Your task to perform on an android device: Empty the shopping cart on bestbuy.com. Add "macbook pro" to the cart on bestbuy.com, then select checkout. Image 0: 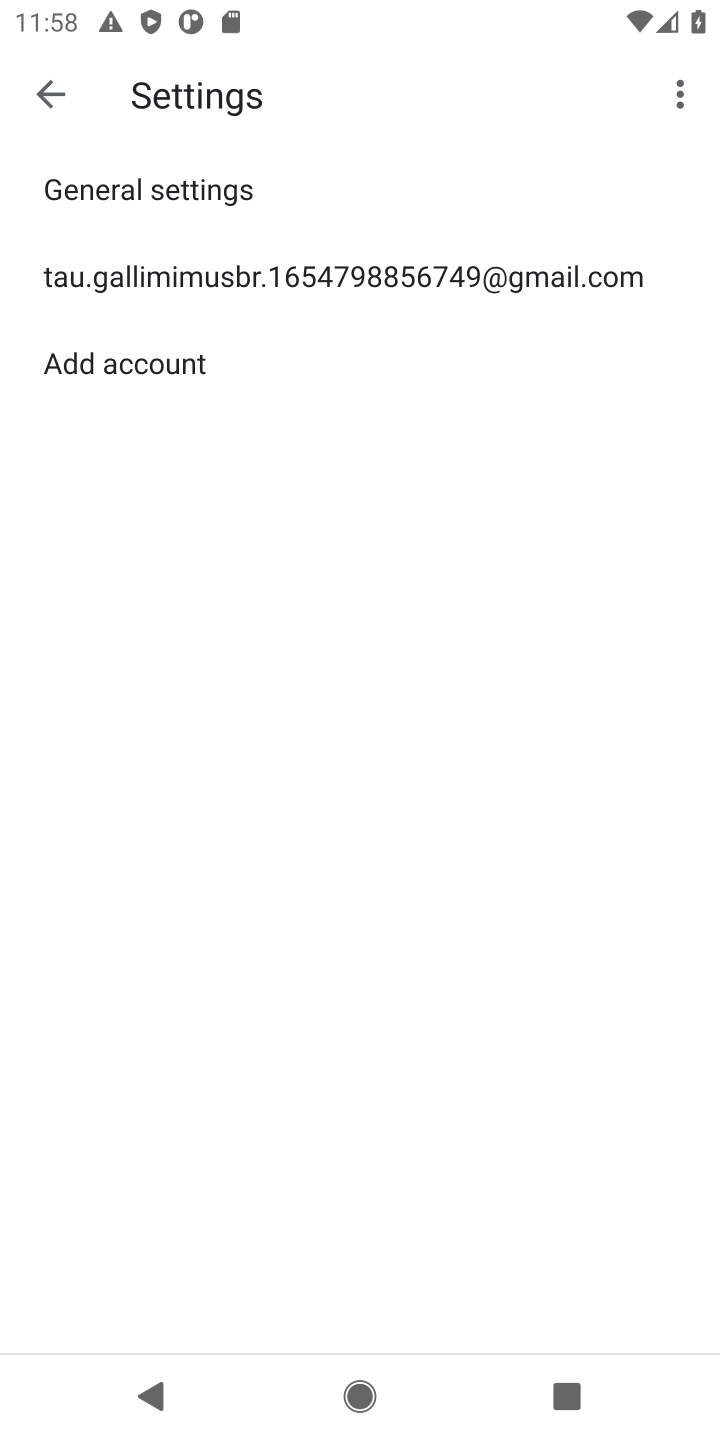
Step 0: press home button
Your task to perform on an android device: Empty the shopping cart on bestbuy.com. Add "macbook pro" to the cart on bestbuy.com, then select checkout. Image 1: 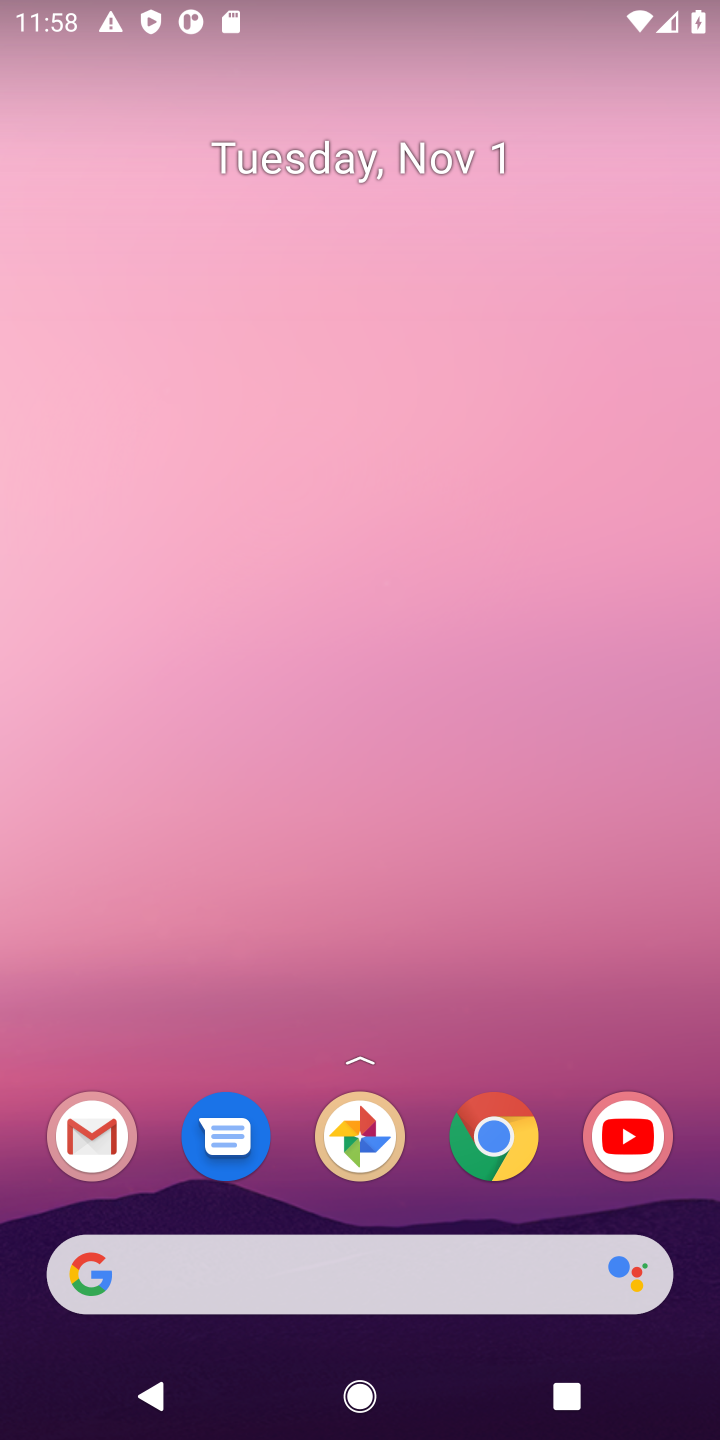
Step 1: click (489, 1142)
Your task to perform on an android device: Empty the shopping cart on bestbuy.com. Add "macbook pro" to the cart on bestbuy.com, then select checkout. Image 2: 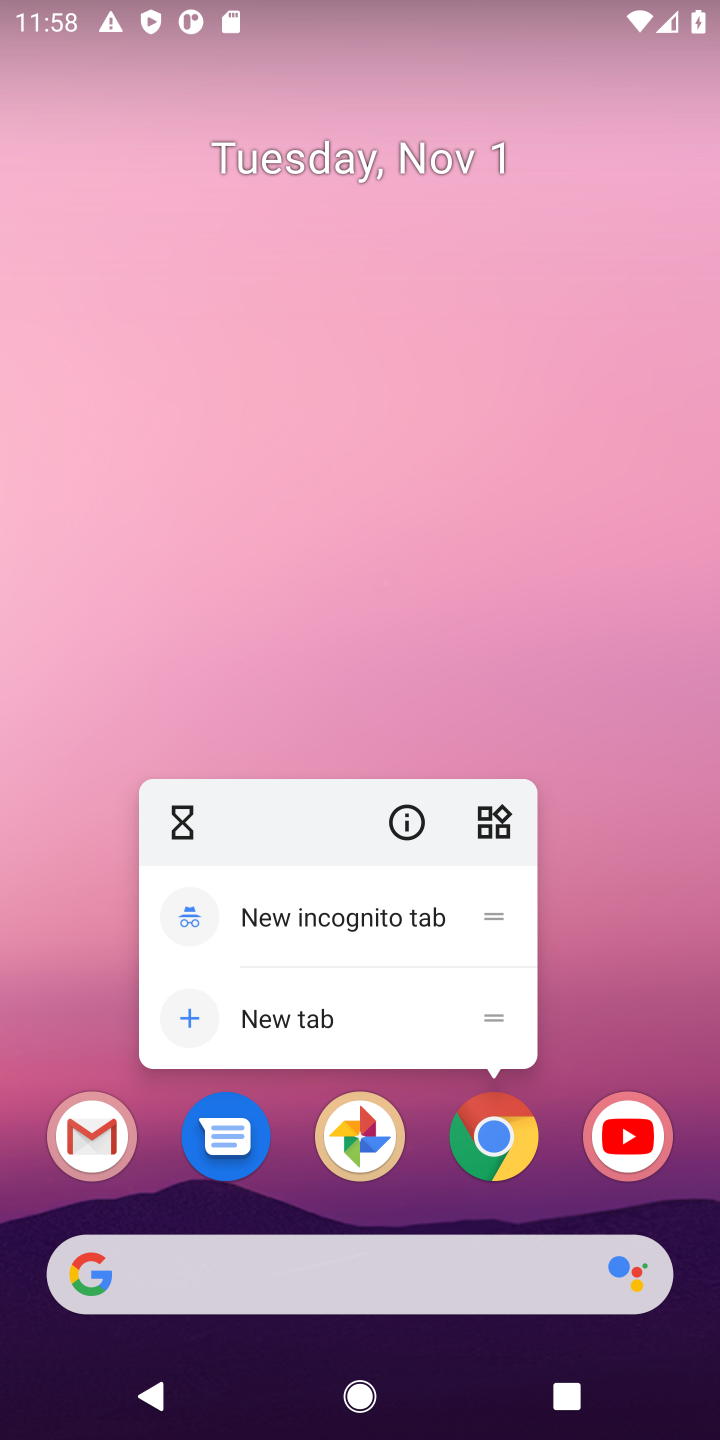
Step 2: click (491, 1161)
Your task to perform on an android device: Empty the shopping cart on bestbuy.com. Add "macbook pro" to the cart on bestbuy.com, then select checkout. Image 3: 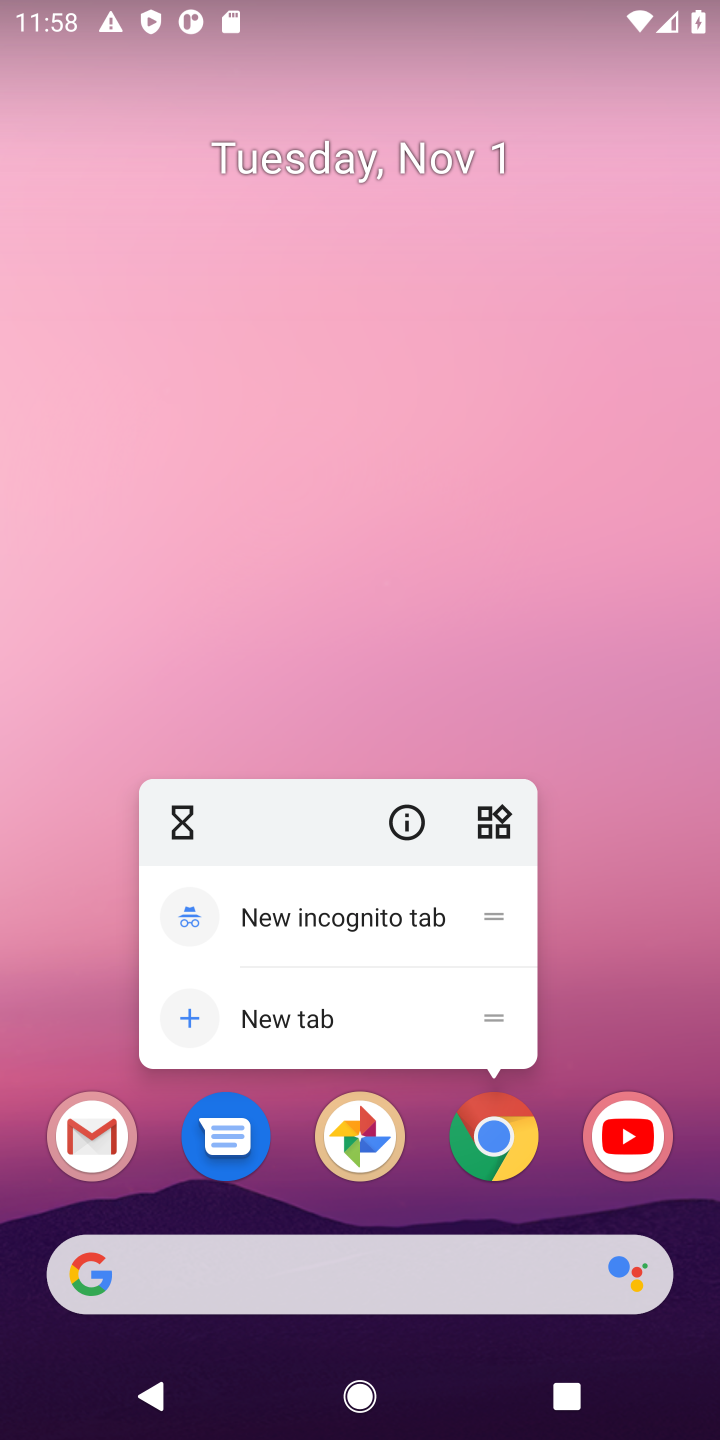
Step 3: click (499, 1142)
Your task to perform on an android device: Empty the shopping cart on bestbuy.com. Add "macbook pro" to the cart on bestbuy.com, then select checkout. Image 4: 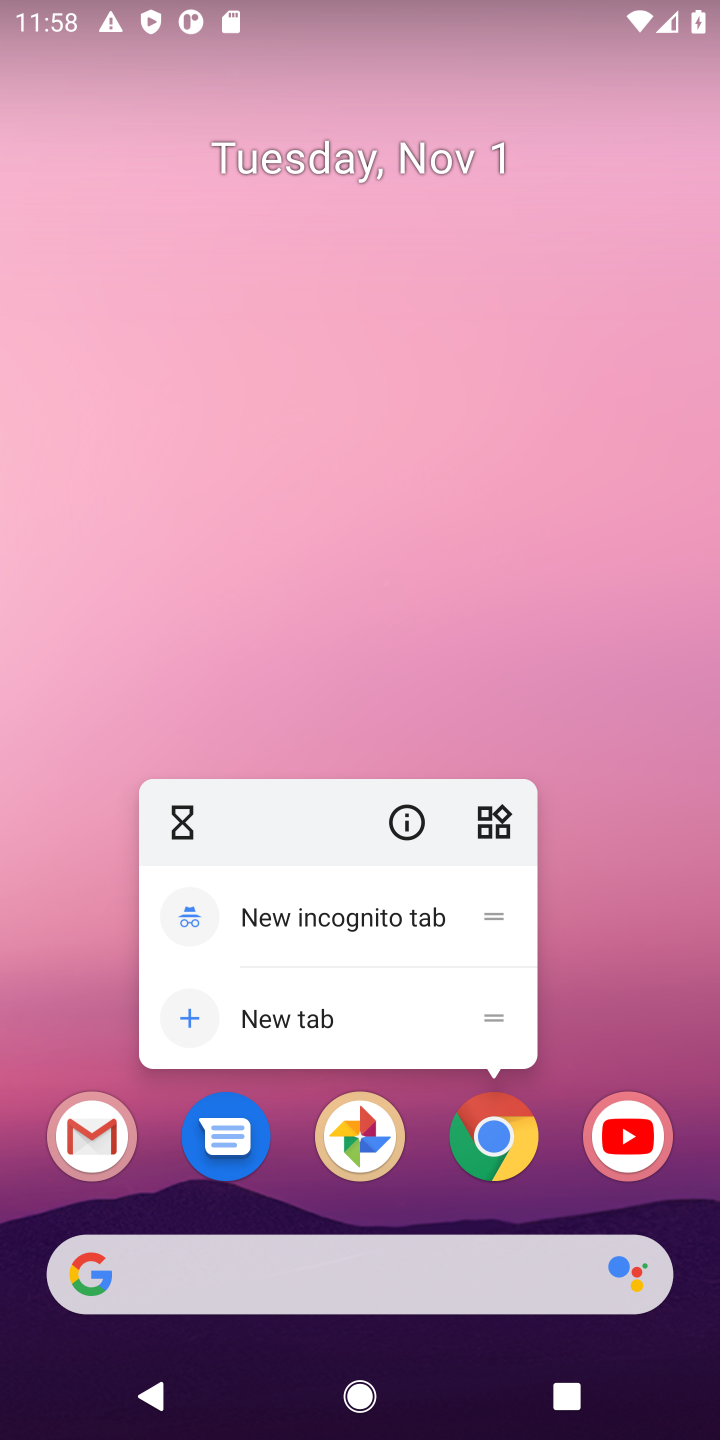
Step 4: click (499, 1142)
Your task to perform on an android device: Empty the shopping cart on bestbuy.com. Add "macbook pro" to the cart on bestbuy.com, then select checkout. Image 5: 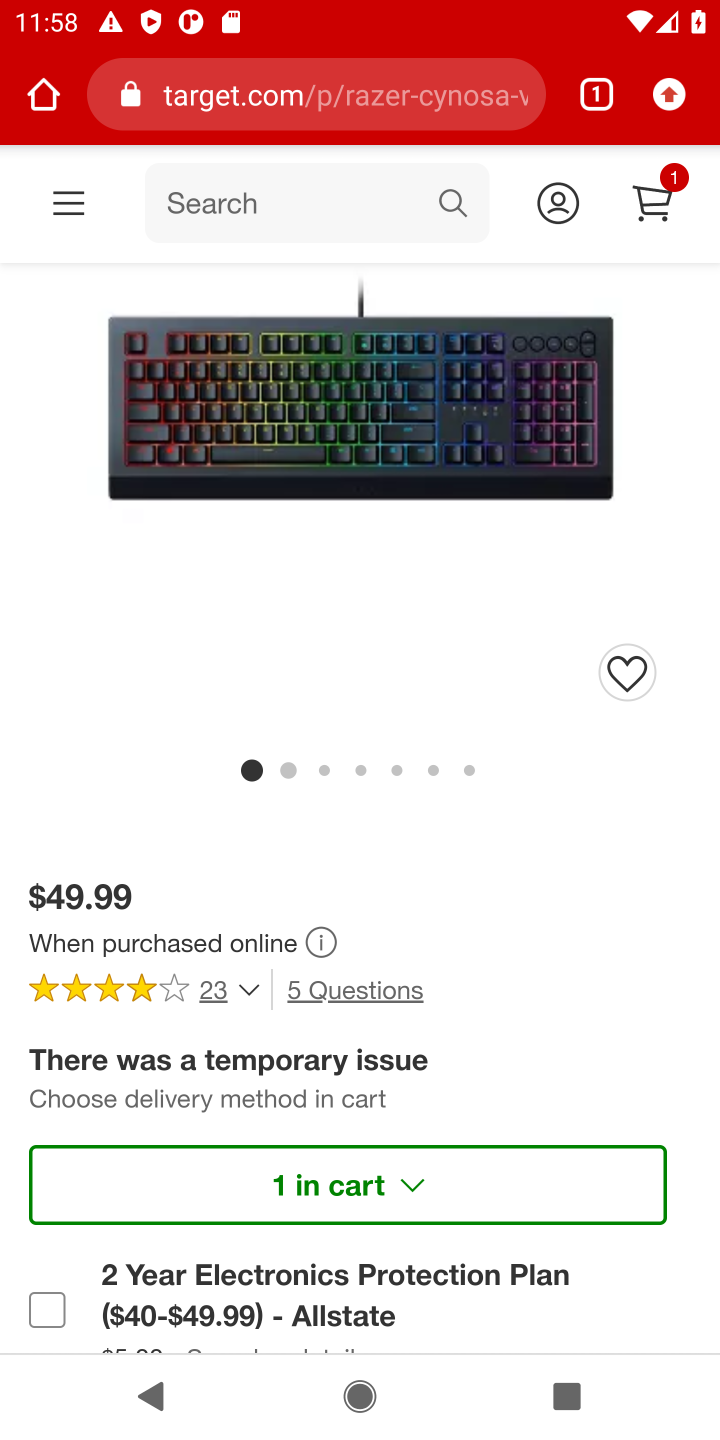
Step 5: click (271, 102)
Your task to perform on an android device: Empty the shopping cart on bestbuy.com. Add "macbook pro" to the cart on bestbuy.com, then select checkout. Image 6: 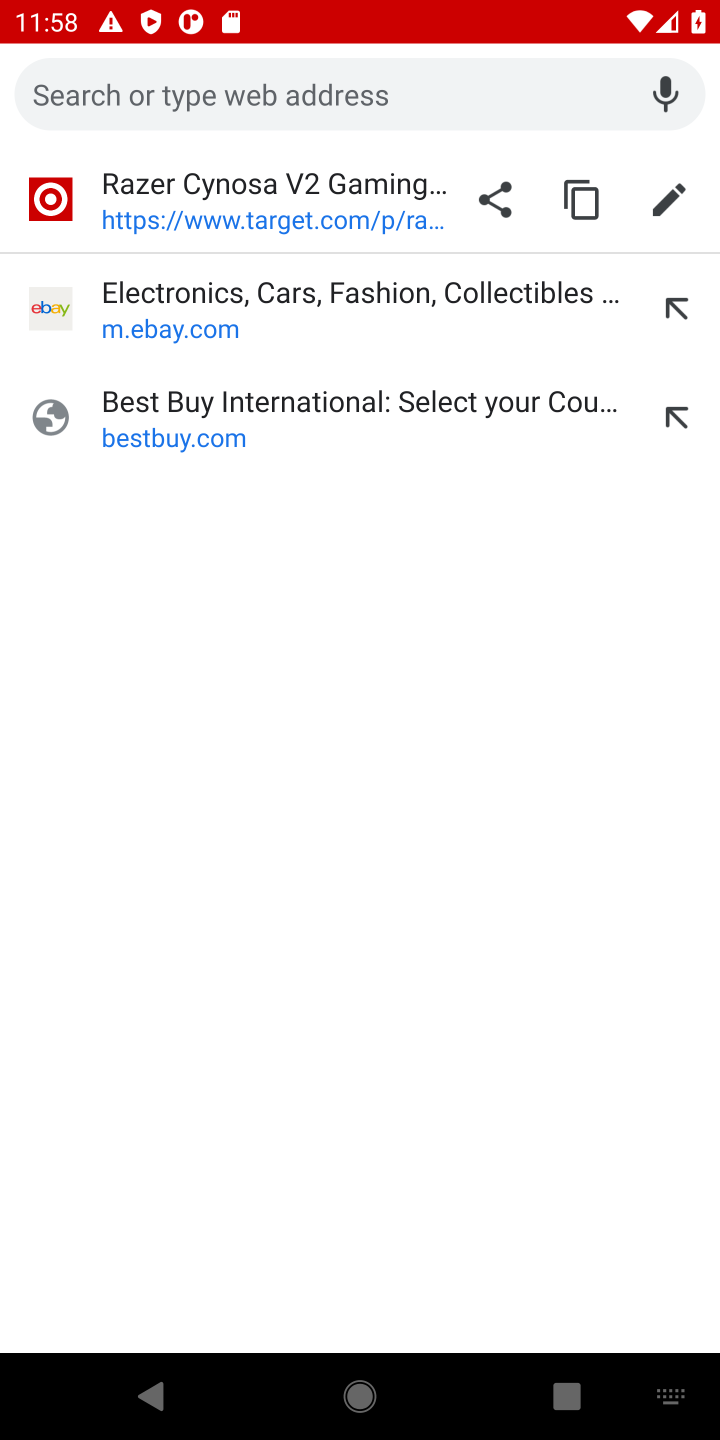
Step 6: type "bestbuy.com"
Your task to perform on an android device: Empty the shopping cart on bestbuy.com. Add "macbook pro" to the cart on bestbuy.com, then select checkout. Image 7: 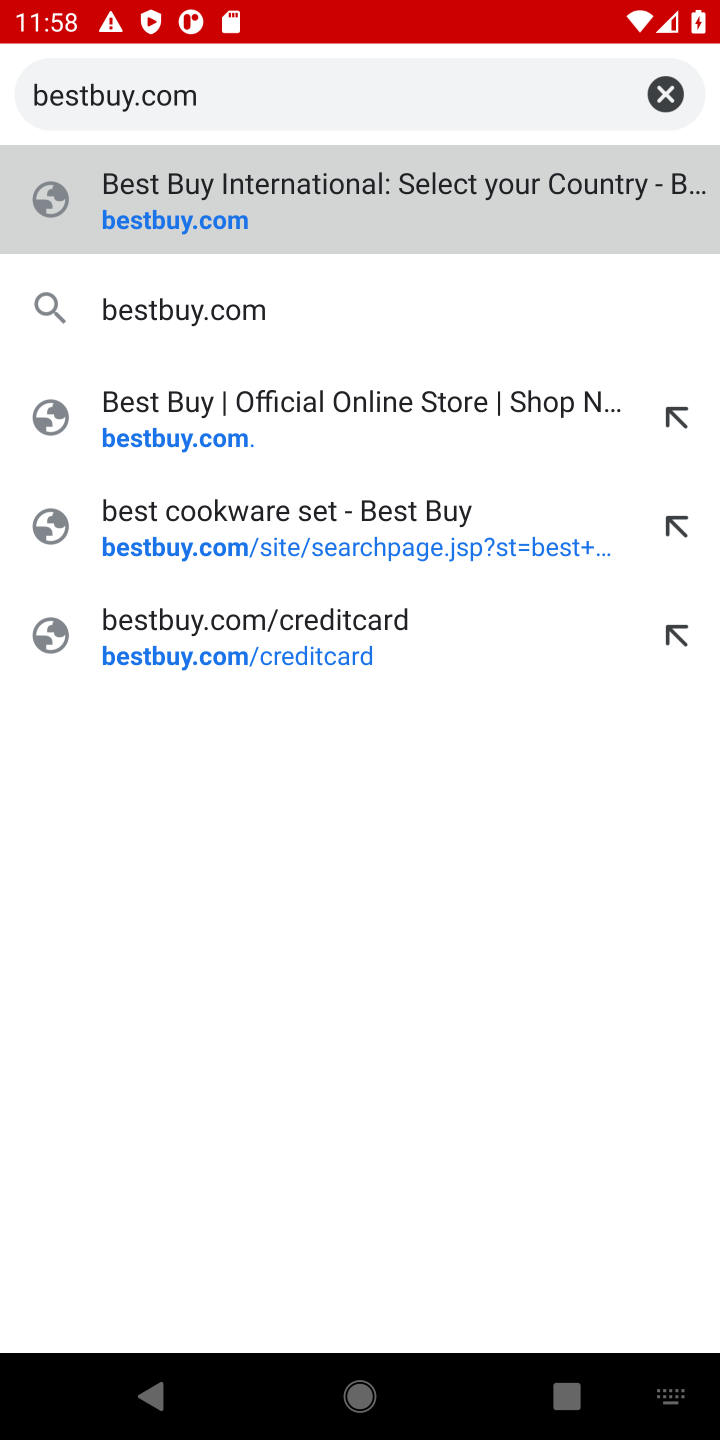
Step 7: type ""
Your task to perform on an android device: Empty the shopping cart on bestbuy.com. Add "macbook pro" to the cart on bestbuy.com, then select checkout. Image 8: 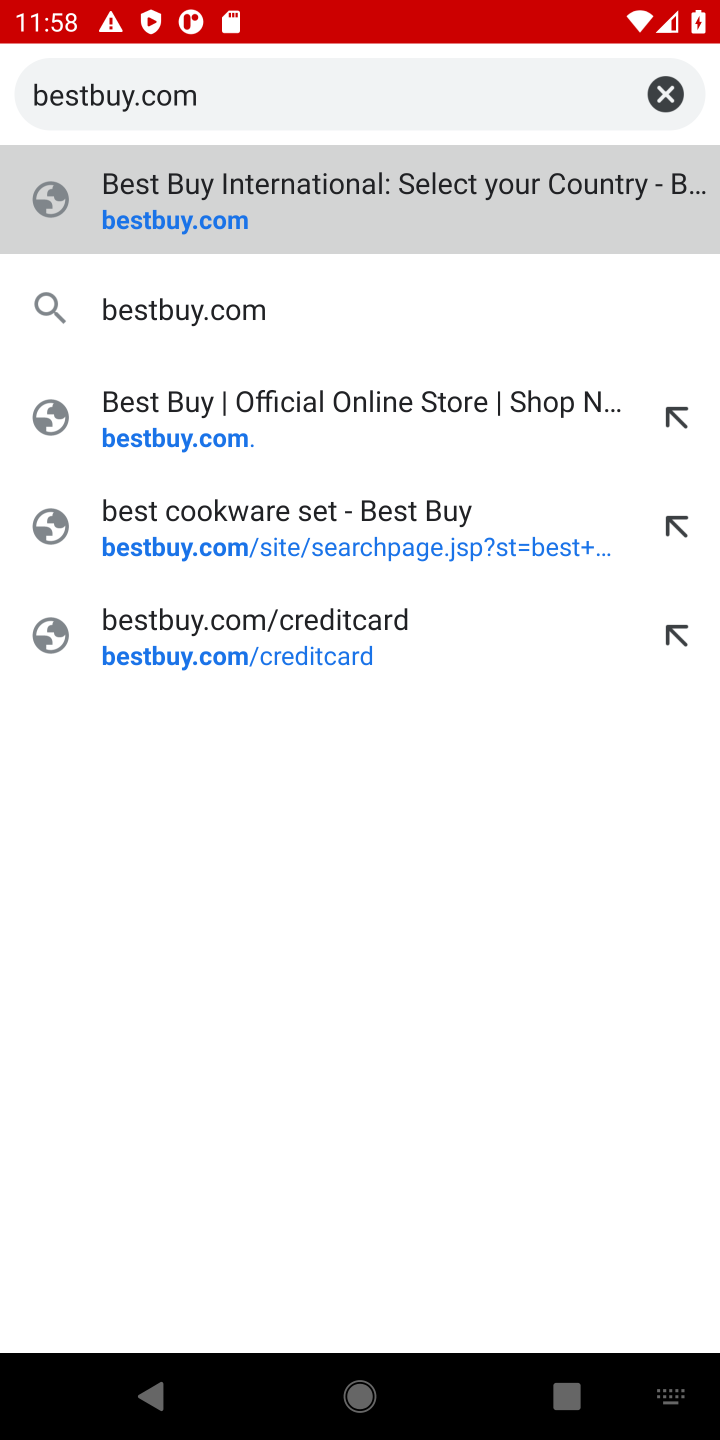
Step 8: click (510, 206)
Your task to perform on an android device: Empty the shopping cart on bestbuy.com. Add "macbook pro" to the cart on bestbuy.com, then select checkout. Image 9: 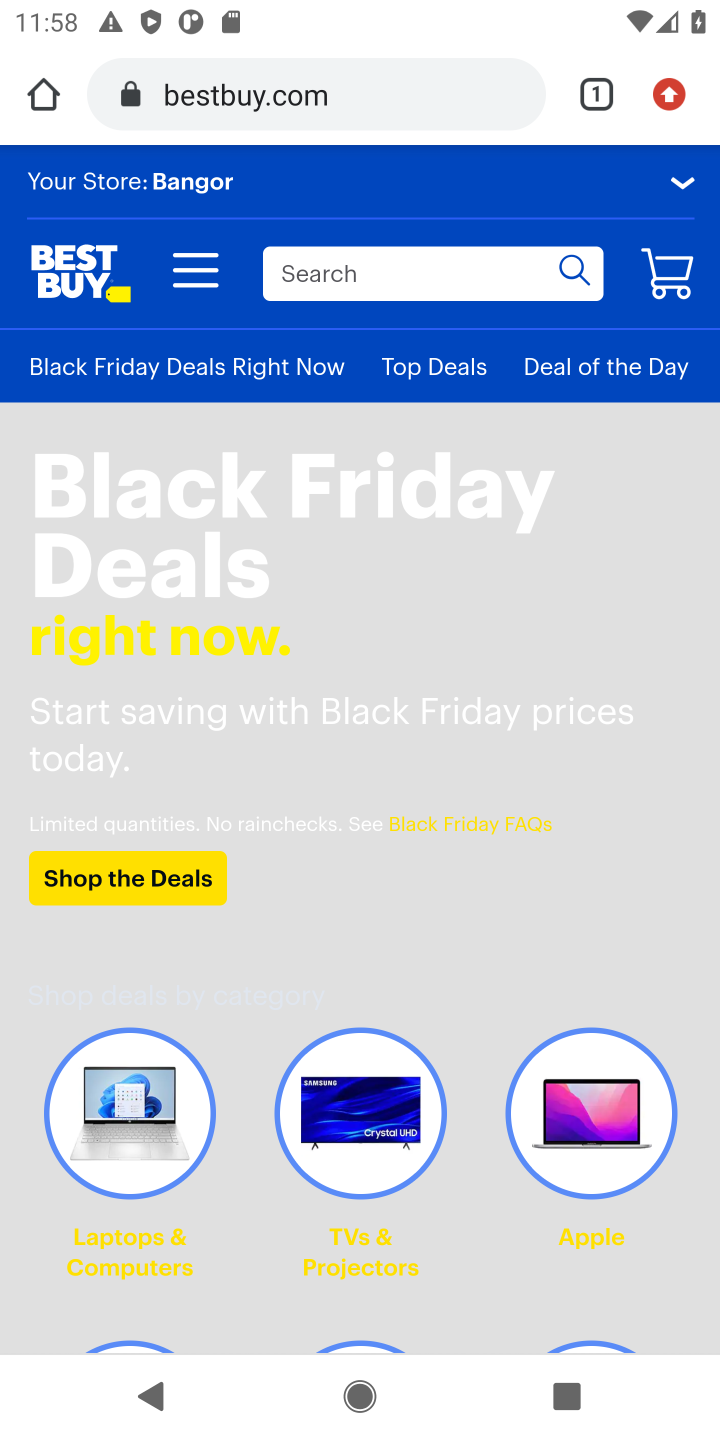
Step 9: click (277, 276)
Your task to perform on an android device: Empty the shopping cart on bestbuy.com. Add "macbook pro" to the cart on bestbuy.com, then select checkout. Image 10: 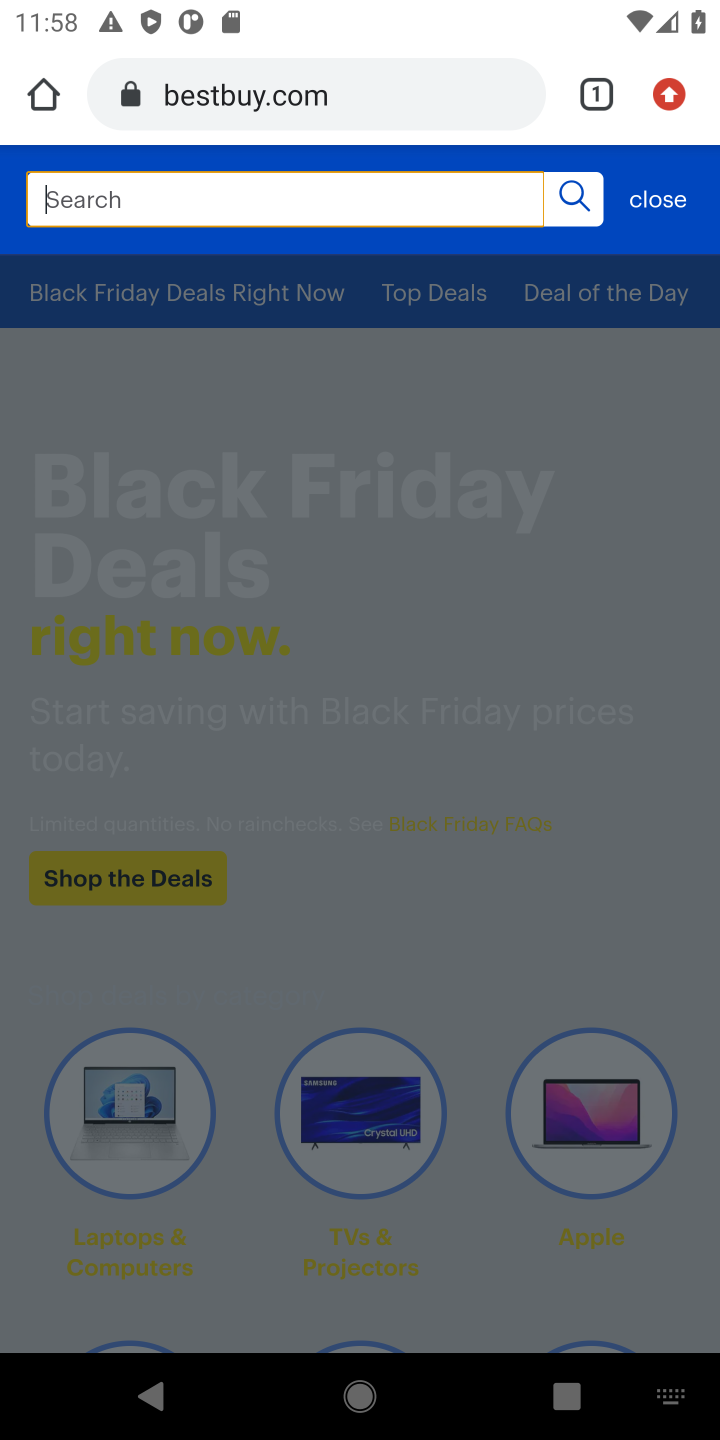
Step 10: type "macbook pro"
Your task to perform on an android device: Empty the shopping cart on bestbuy.com. Add "macbook pro" to the cart on bestbuy.com, then select checkout. Image 11: 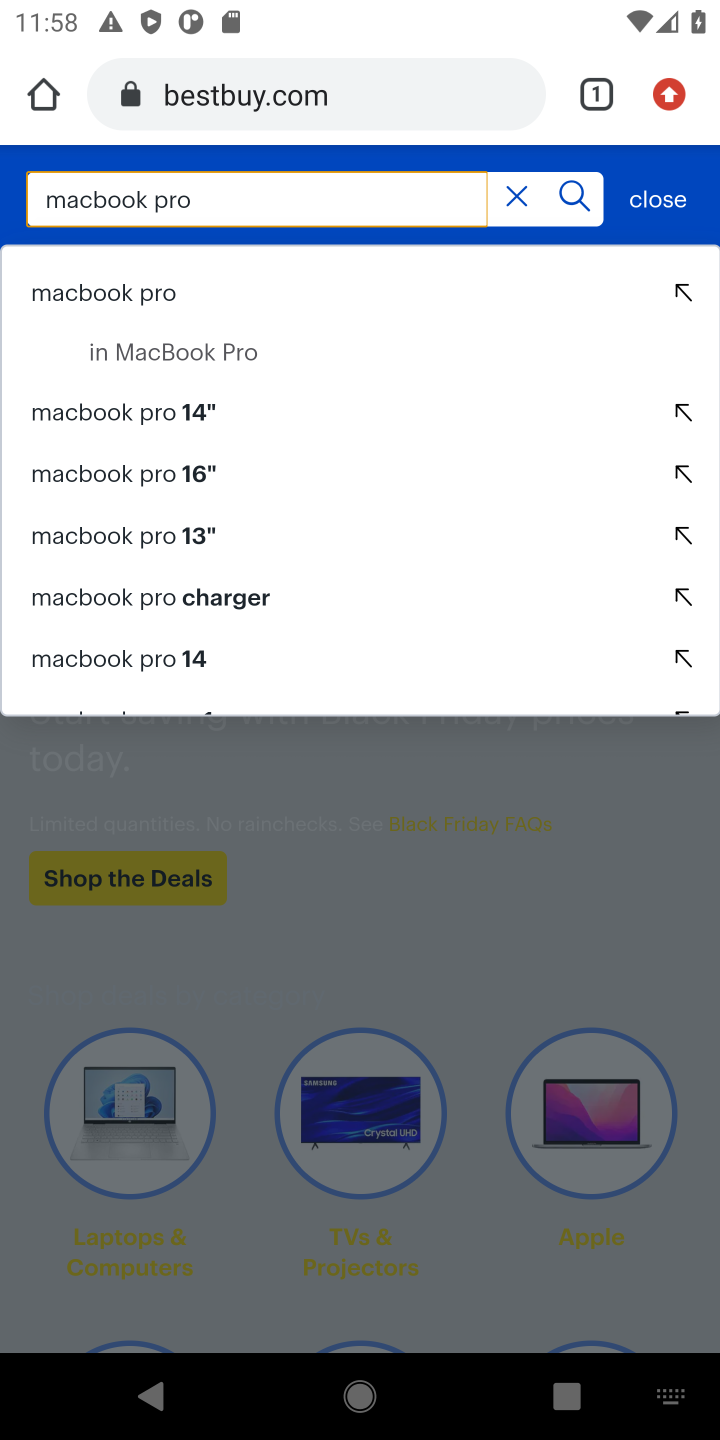
Step 11: click (211, 353)
Your task to perform on an android device: Empty the shopping cart on bestbuy.com. Add "macbook pro" to the cart on bestbuy.com, then select checkout. Image 12: 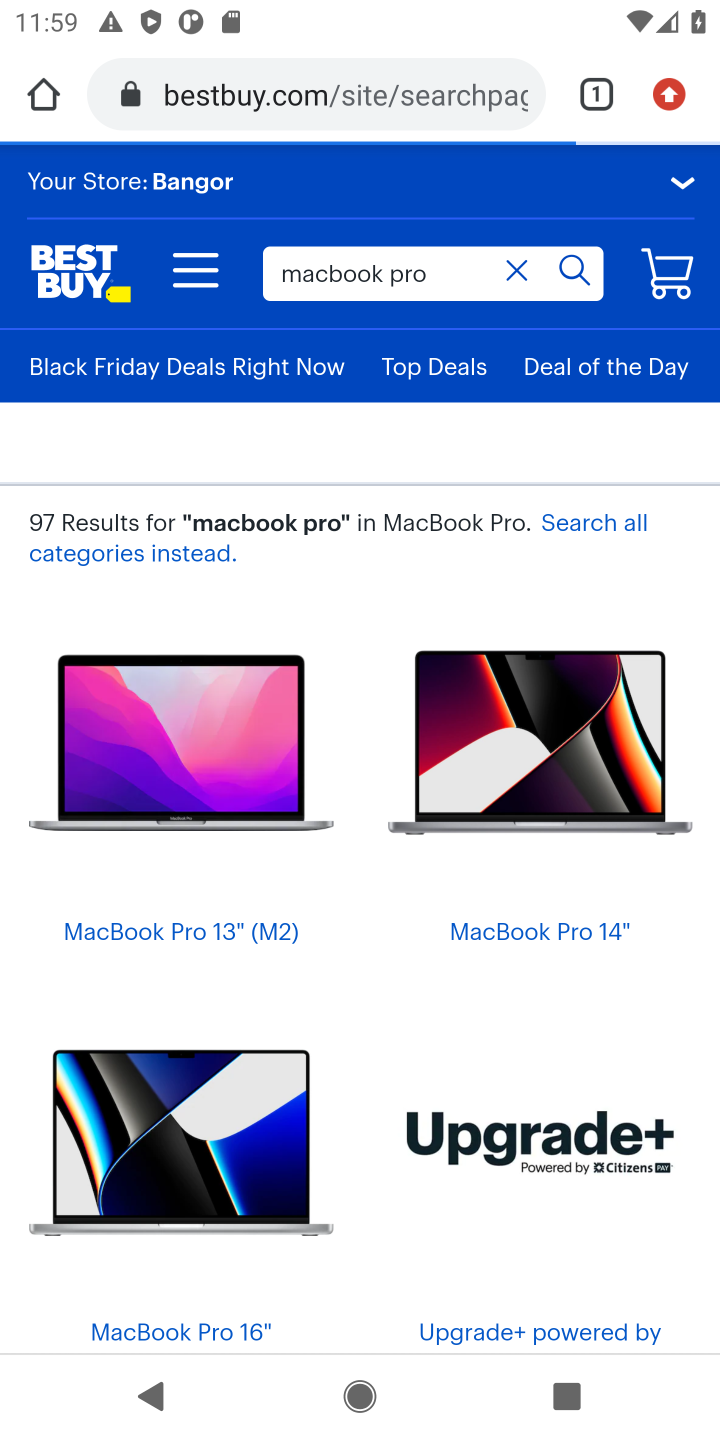
Step 12: click (536, 802)
Your task to perform on an android device: Empty the shopping cart on bestbuy.com. Add "macbook pro" to the cart on bestbuy.com, then select checkout. Image 13: 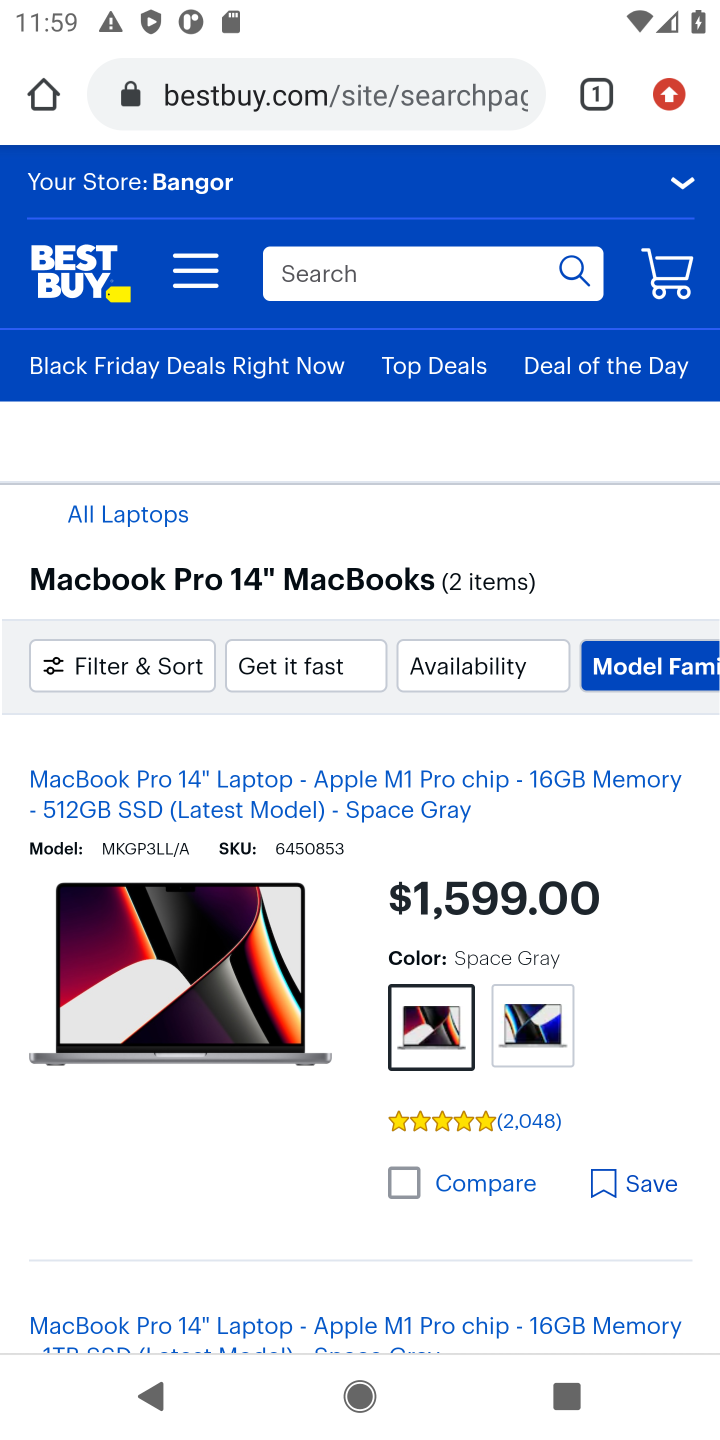
Step 13: drag from (407, 854) to (442, 494)
Your task to perform on an android device: Empty the shopping cart on bestbuy.com. Add "macbook pro" to the cart on bestbuy.com, then select checkout. Image 14: 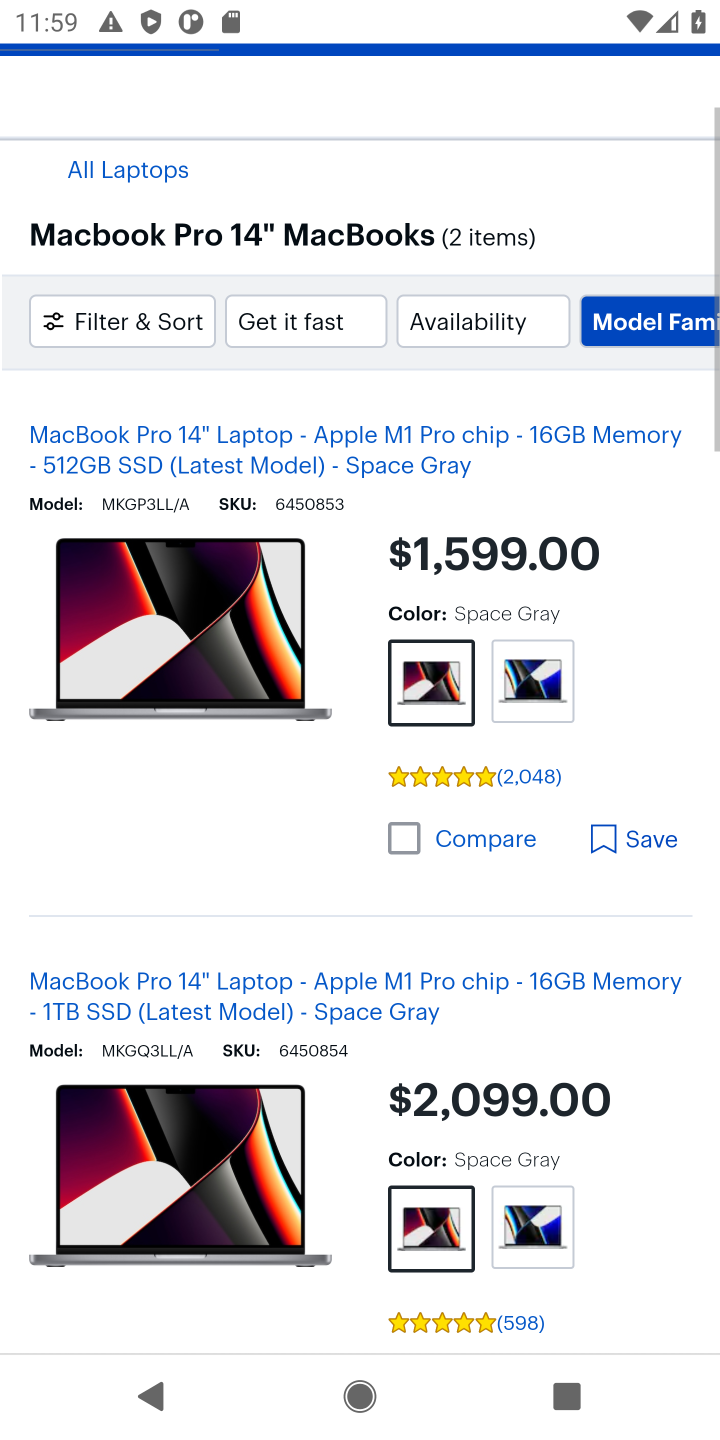
Step 14: click (415, 957)
Your task to perform on an android device: Empty the shopping cart on bestbuy.com. Add "macbook pro" to the cart on bestbuy.com, then select checkout. Image 15: 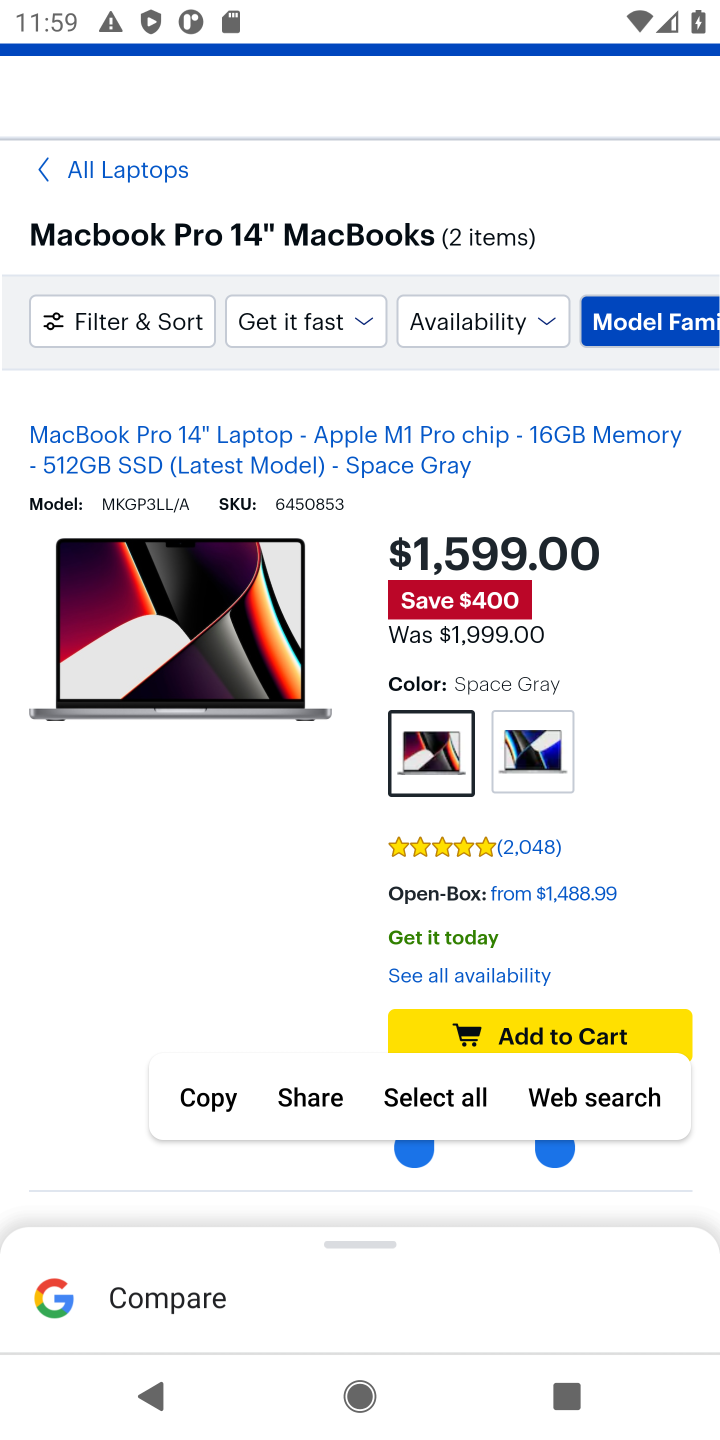
Step 15: click (281, 610)
Your task to perform on an android device: Empty the shopping cart on bestbuy.com. Add "macbook pro" to the cart on bestbuy.com, then select checkout. Image 16: 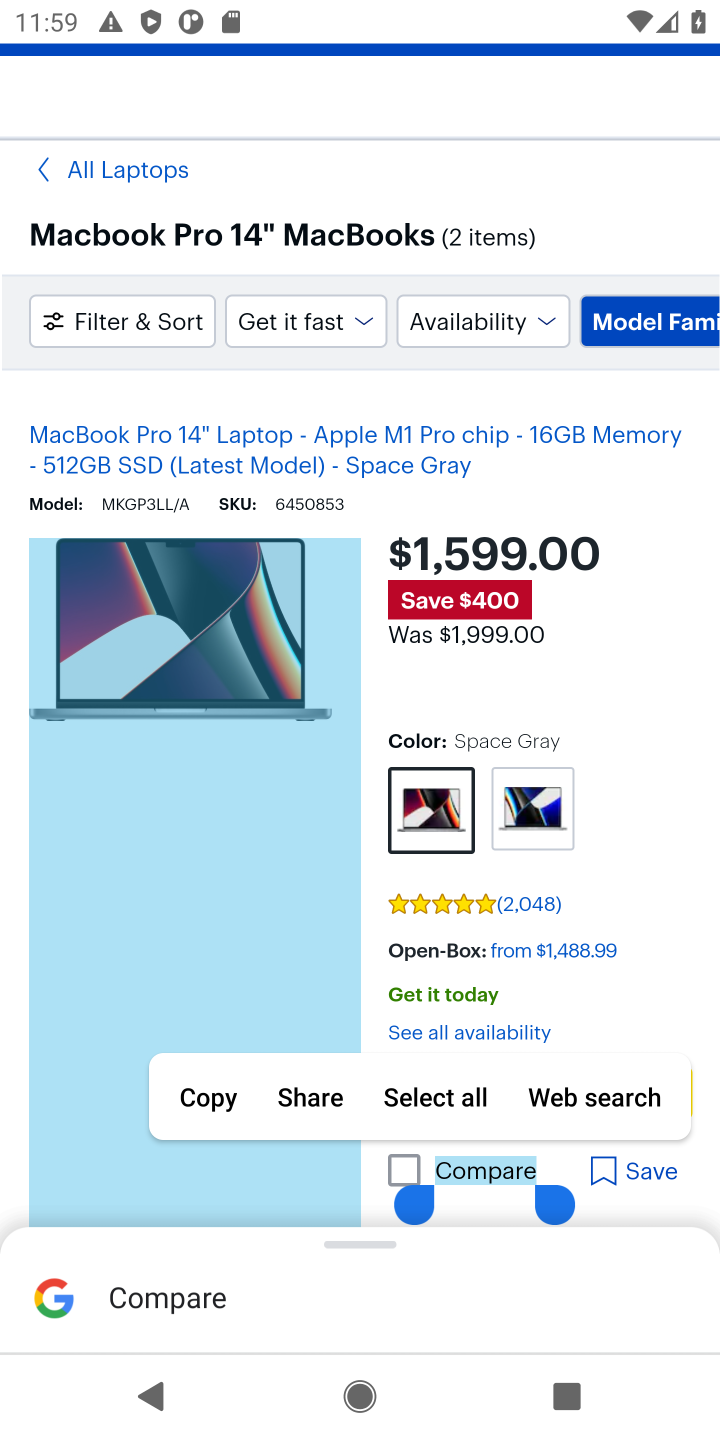
Step 16: drag from (533, 547) to (220, 355)
Your task to perform on an android device: Empty the shopping cart on bestbuy.com. Add "macbook pro" to the cart on bestbuy.com, then select checkout. Image 17: 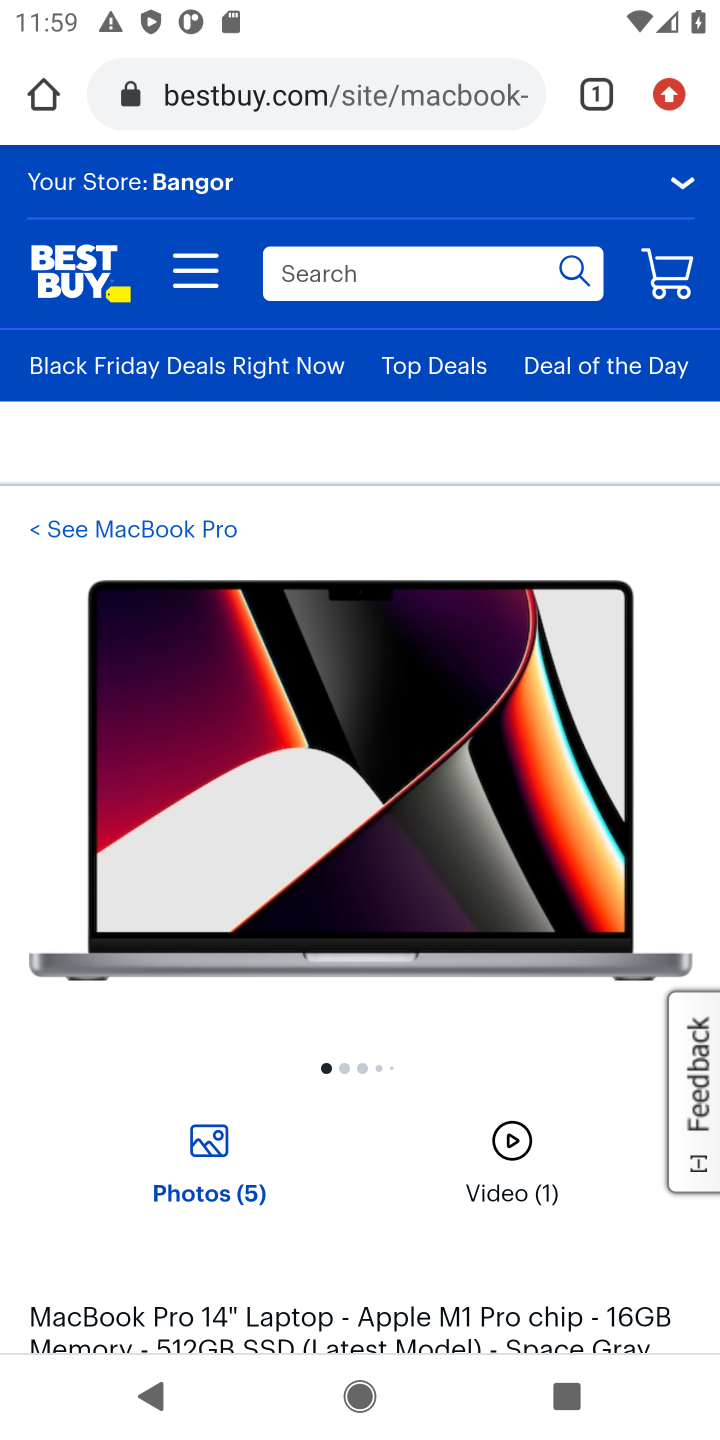
Step 17: drag from (212, 1065) to (360, 429)
Your task to perform on an android device: Empty the shopping cart on bestbuy.com. Add "macbook pro" to the cart on bestbuy.com, then select checkout. Image 18: 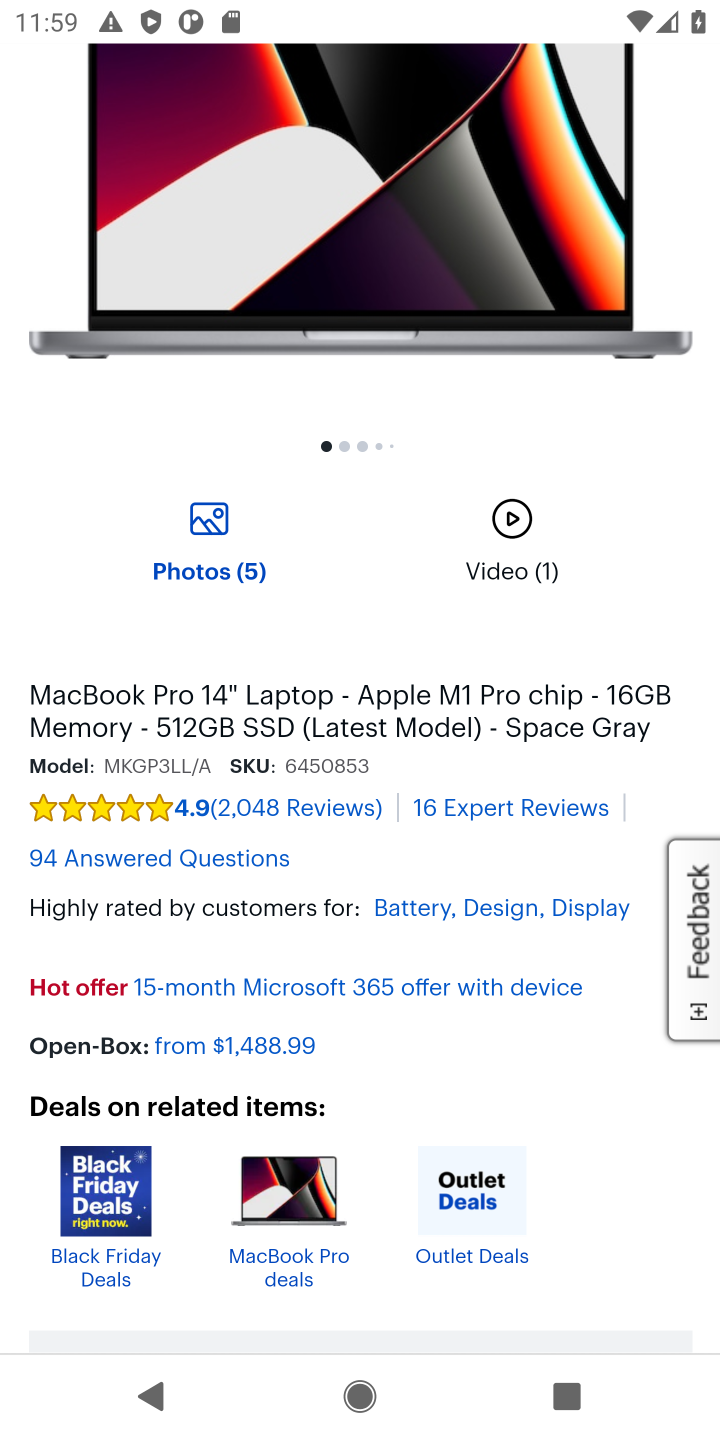
Step 18: drag from (416, 1143) to (503, 535)
Your task to perform on an android device: Empty the shopping cart on bestbuy.com. Add "macbook pro" to the cart on bestbuy.com, then select checkout. Image 19: 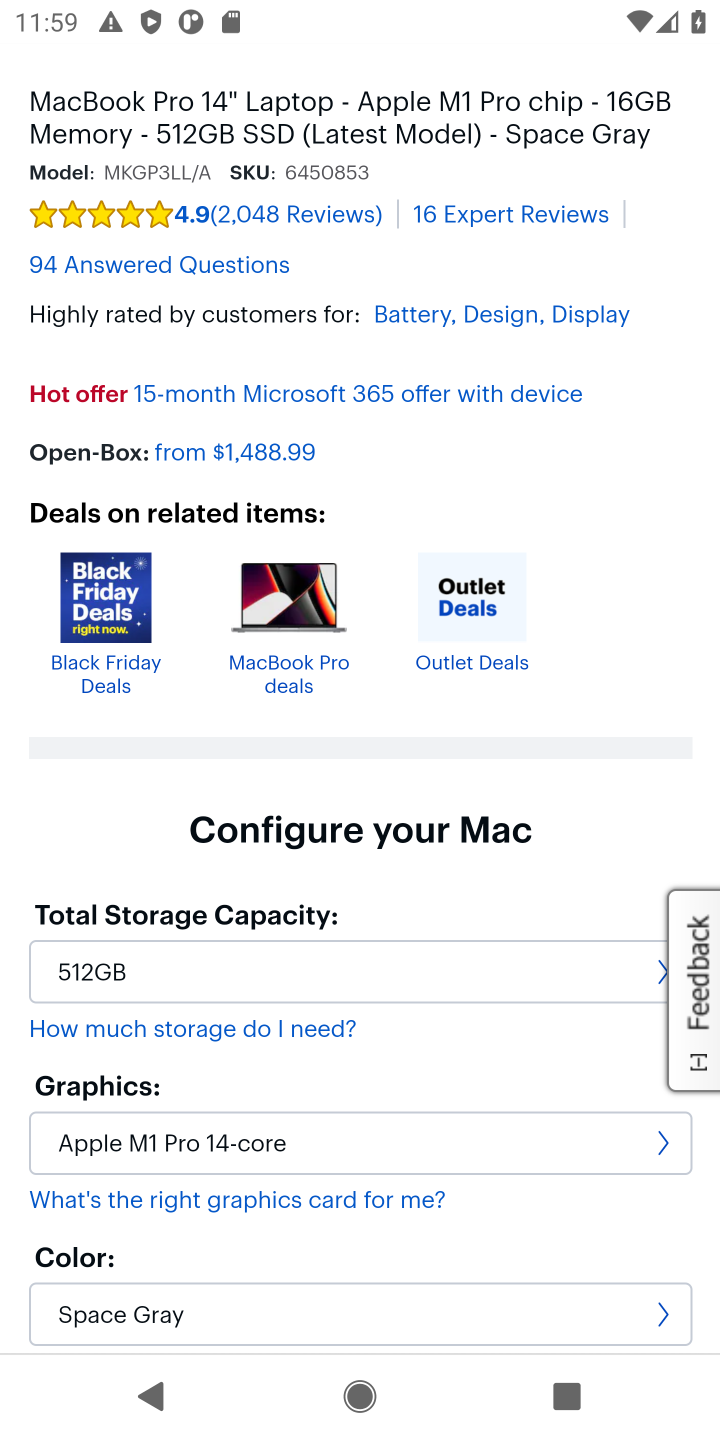
Step 19: drag from (541, 1040) to (586, 557)
Your task to perform on an android device: Empty the shopping cart on bestbuy.com. Add "macbook pro" to the cart on bestbuy.com, then select checkout. Image 20: 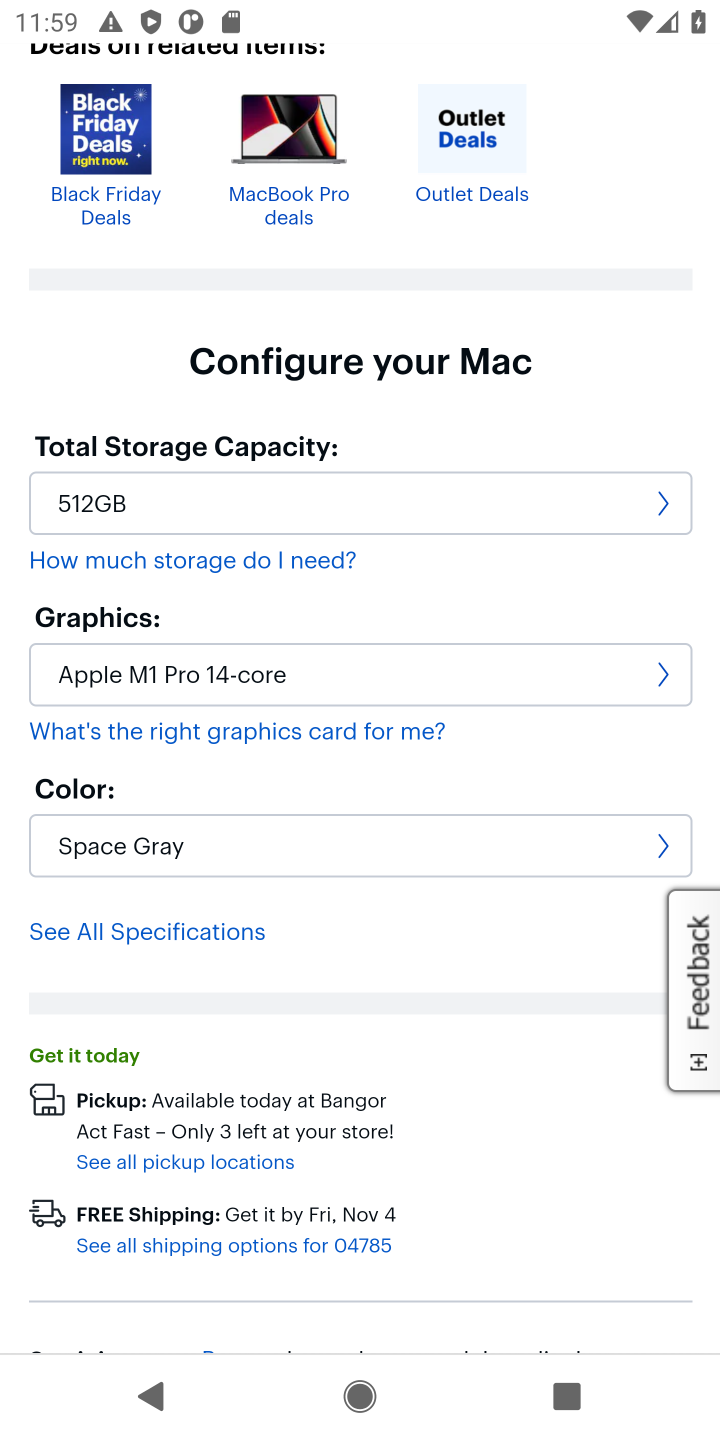
Step 20: drag from (408, 1044) to (391, 502)
Your task to perform on an android device: Empty the shopping cart on bestbuy.com. Add "macbook pro" to the cart on bestbuy.com, then select checkout. Image 21: 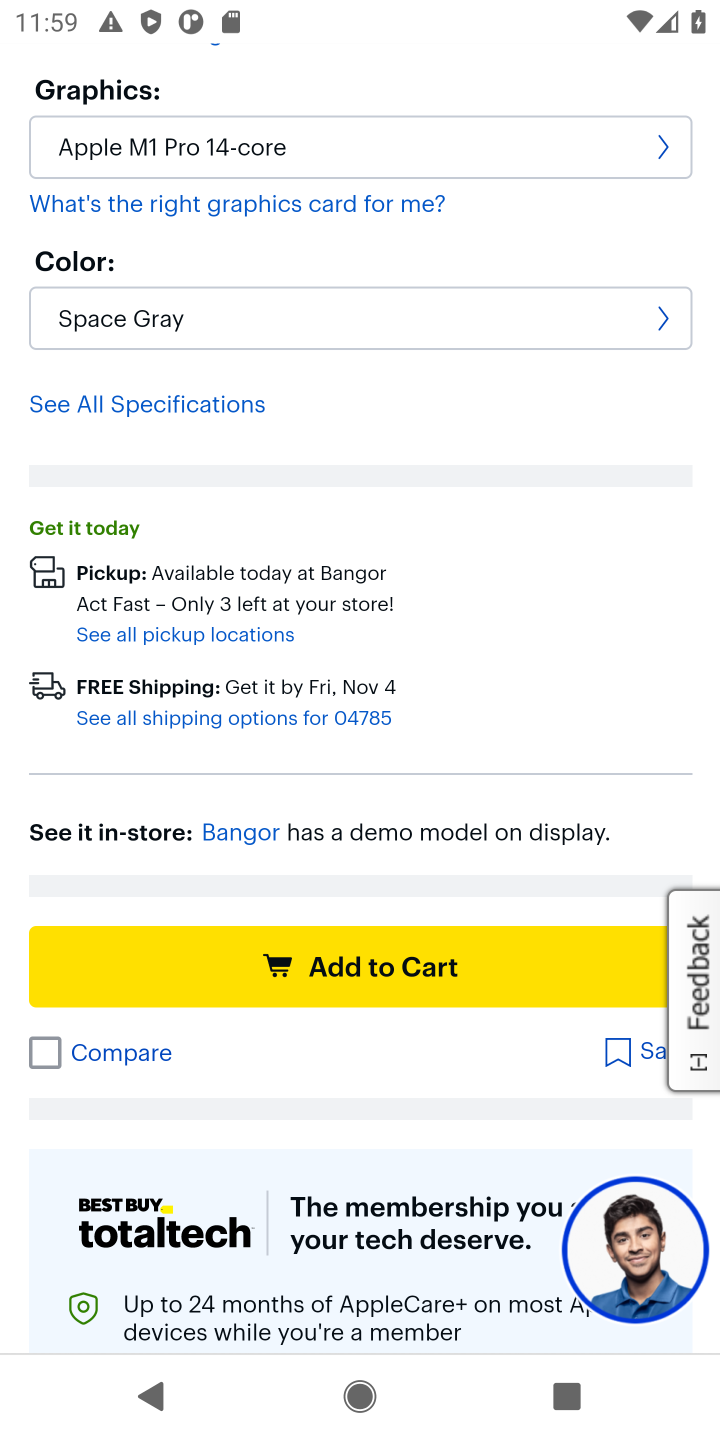
Step 21: click (265, 954)
Your task to perform on an android device: Empty the shopping cart on bestbuy.com. Add "macbook pro" to the cart on bestbuy.com, then select checkout. Image 22: 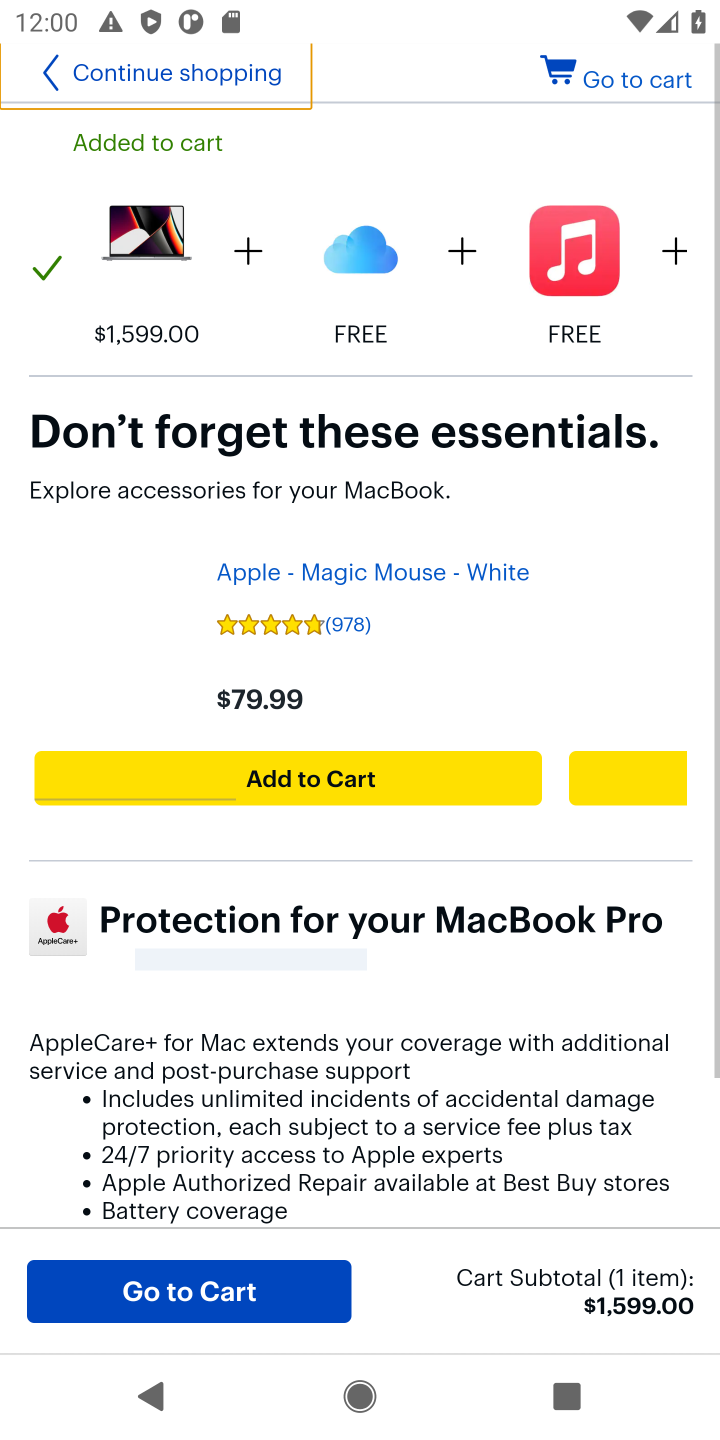
Step 22: click (269, 1280)
Your task to perform on an android device: Empty the shopping cart on bestbuy.com. Add "macbook pro" to the cart on bestbuy.com, then select checkout. Image 23: 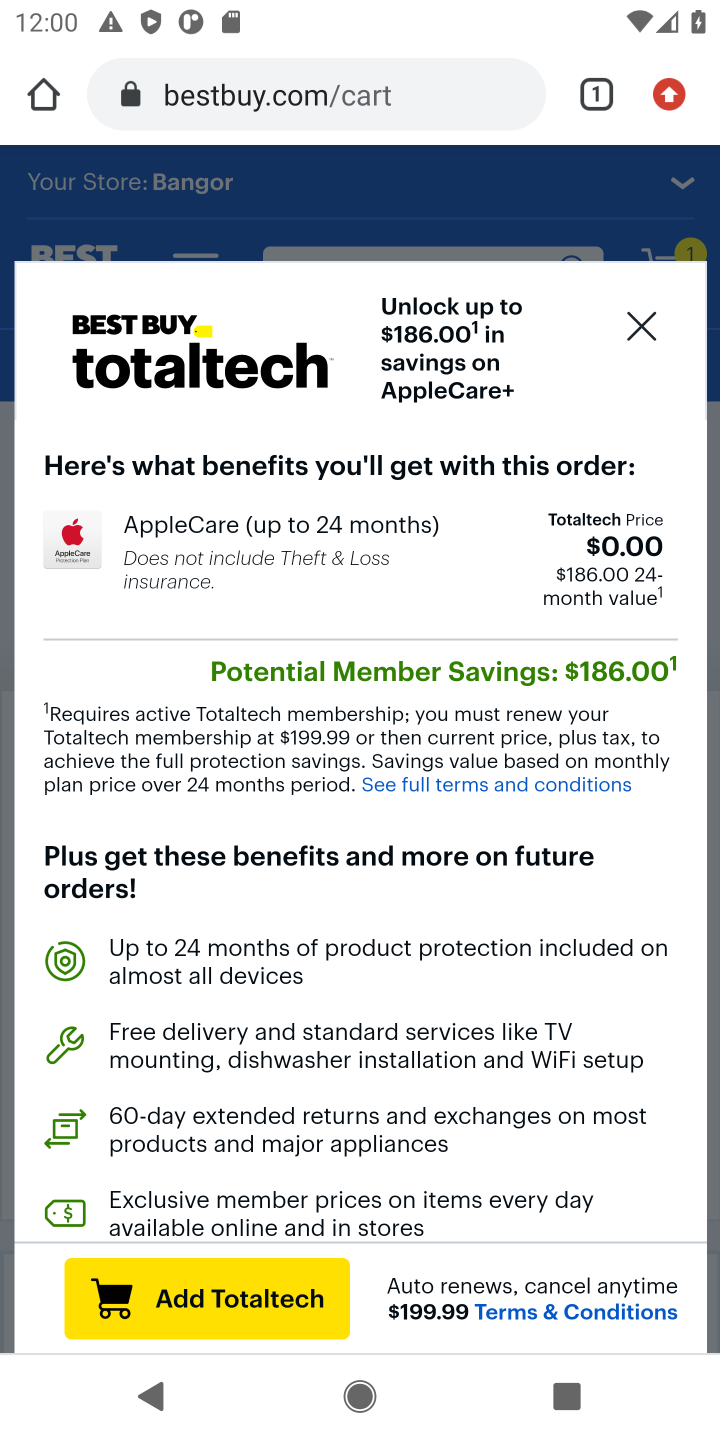
Step 23: click (618, 339)
Your task to perform on an android device: Empty the shopping cart on bestbuy.com. Add "macbook pro" to the cart on bestbuy.com, then select checkout. Image 24: 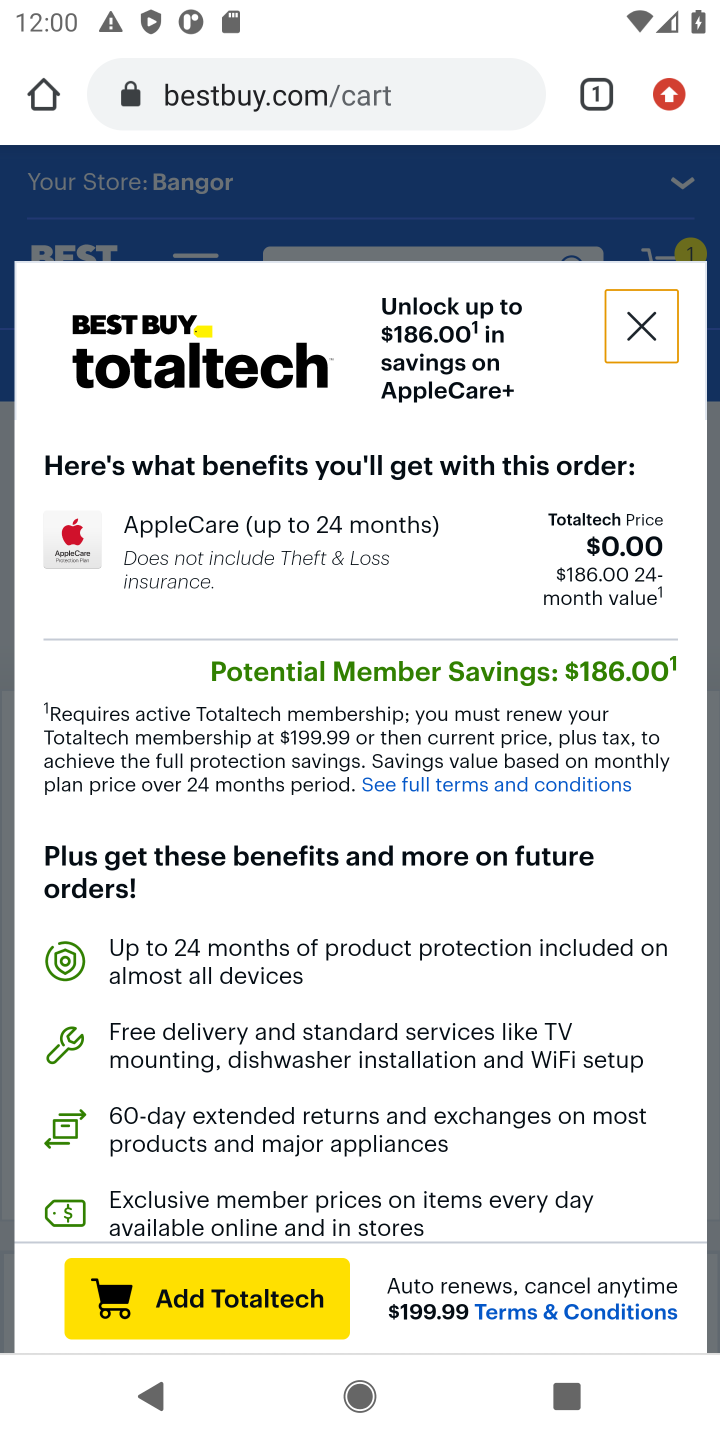
Step 24: click (646, 327)
Your task to perform on an android device: Empty the shopping cart on bestbuy.com. Add "macbook pro" to the cart on bestbuy.com, then select checkout. Image 25: 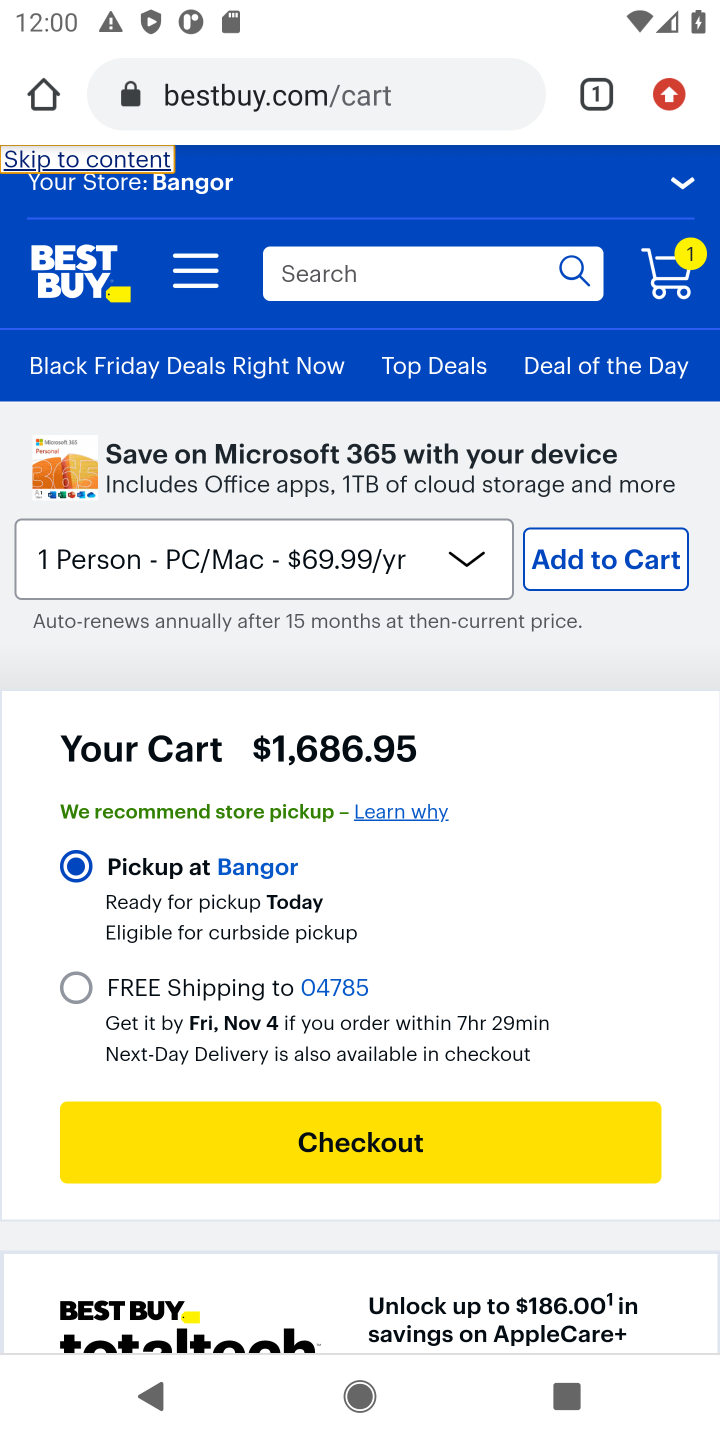
Step 25: click (687, 262)
Your task to perform on an android device: Empty the shopping cart on bestbuy.com. Add "macbook pro" to the cart on bestbuy.com, then select checkout. Image 26: 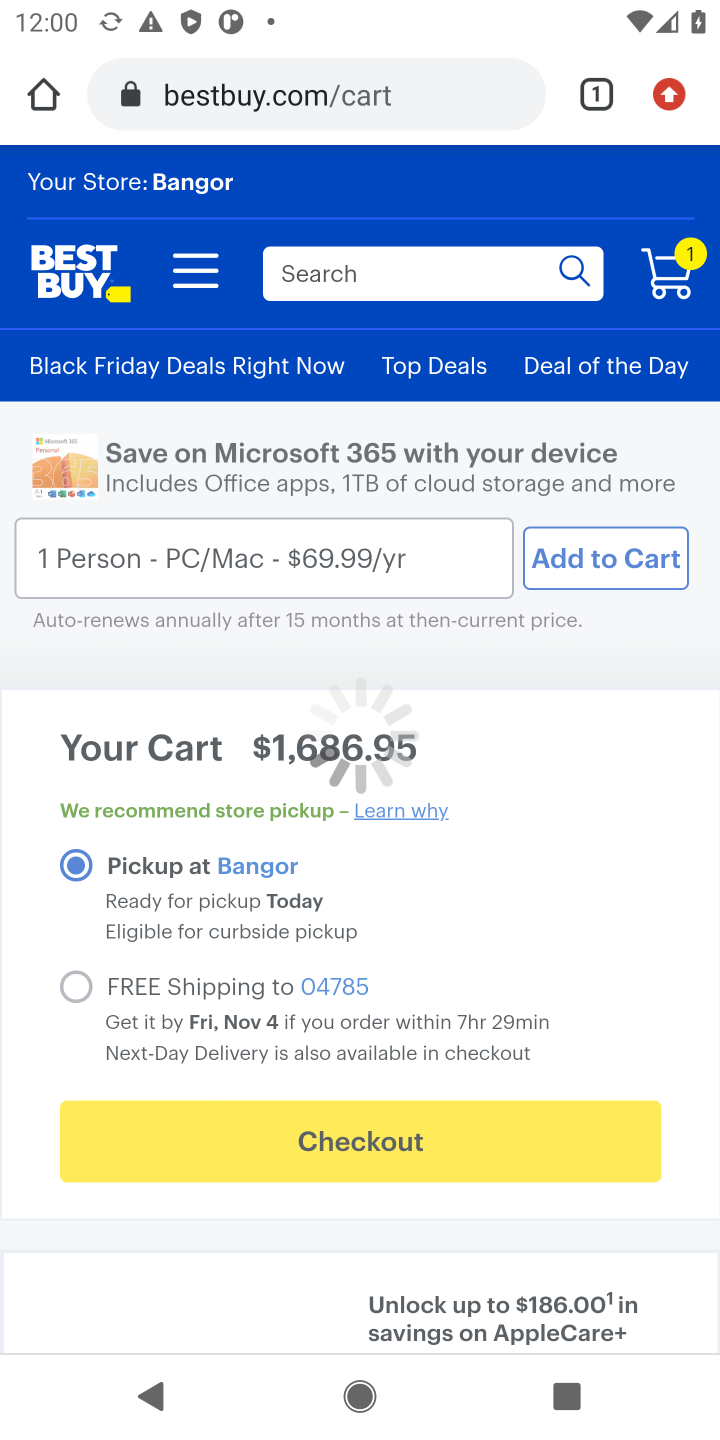
Step 26: click (688, 289)
Your task to perform on an android device: Empty the shopping cart on bestbuy.com. Add "macbook pro" to the cart on bestbuy.com, then select checkout. Image 27: 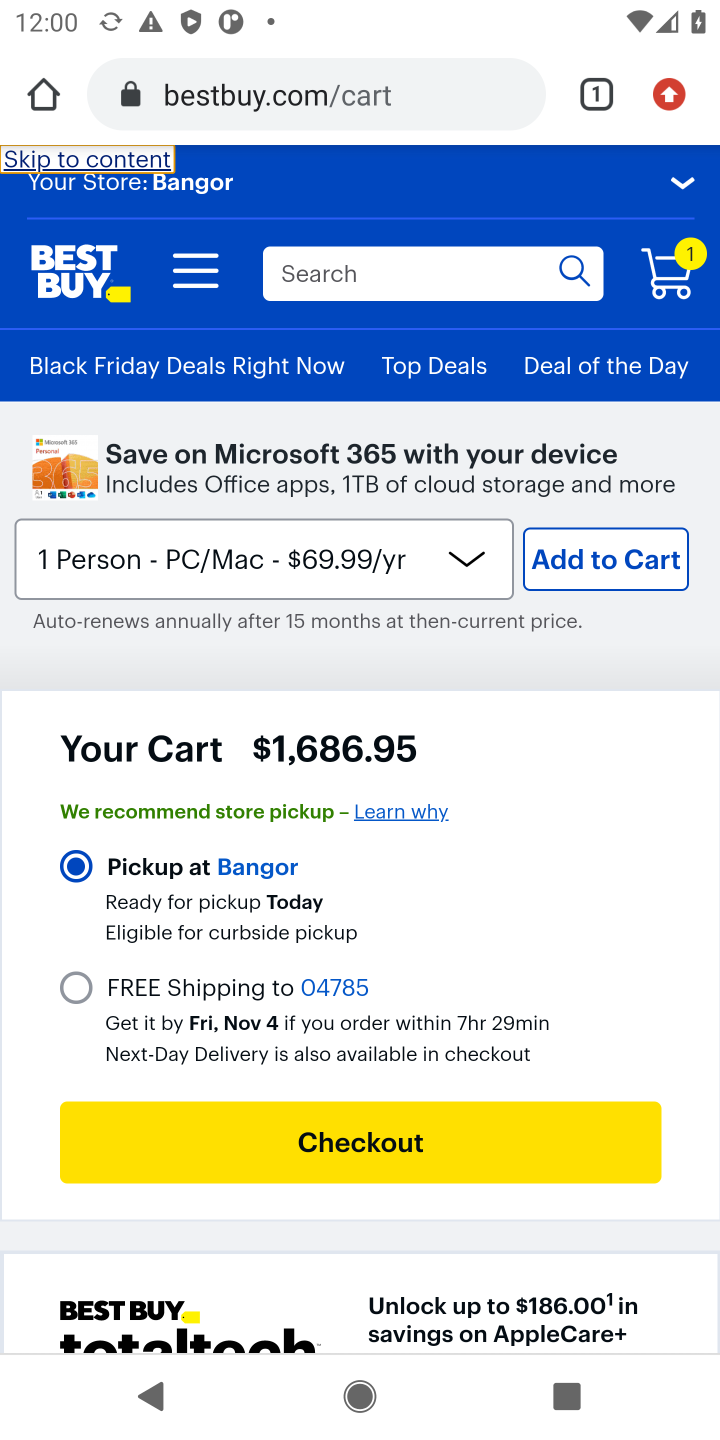
Step 27: click (688, 289)
Your task to perform on an android device: Empty the shopping cart on bestbuy.com. Add "macbook pro" to the cart on bestbuy.com, then select checkout. Image 28: 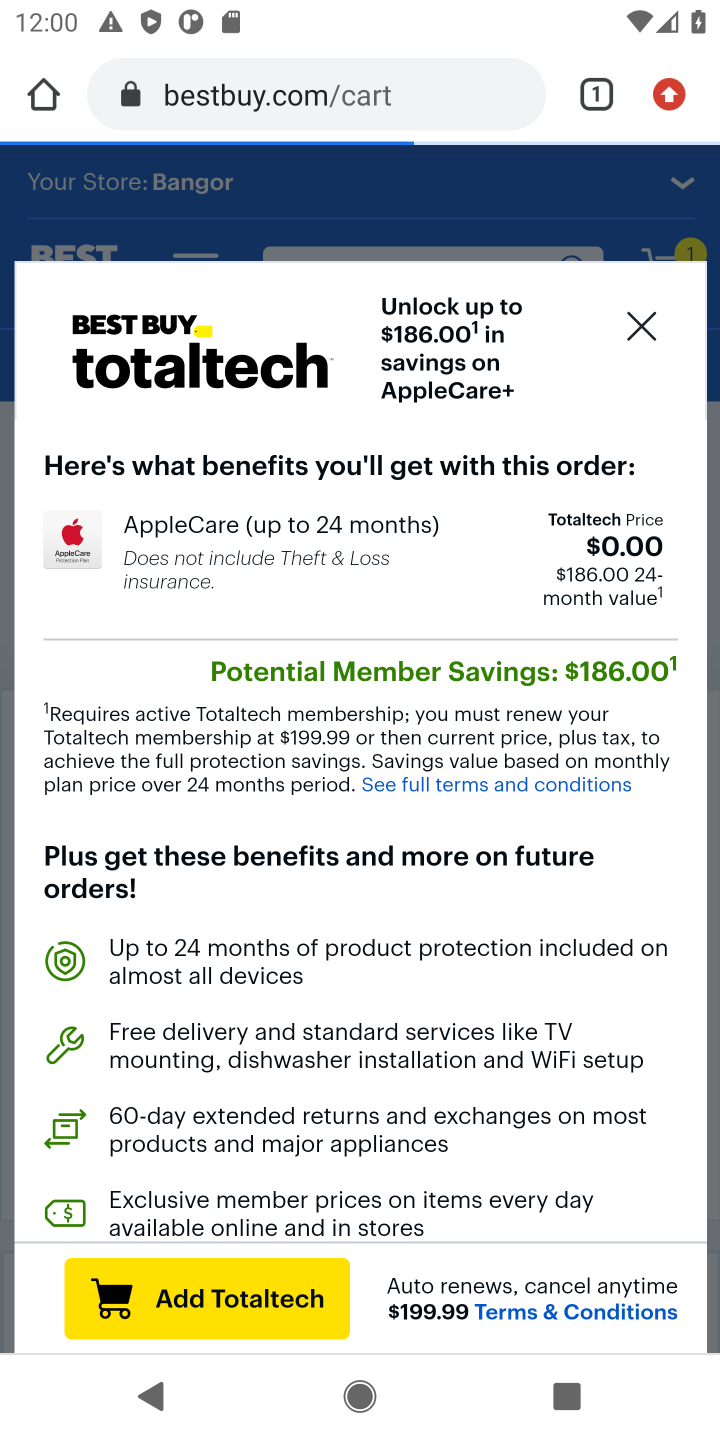
Step 28: click (627, 329)
Your task to perform on an android device: Empty the shopping cart on bestbuy.com. Add "macbook pro" to the cart on bestbuy.com, then select checkout. Image 29: 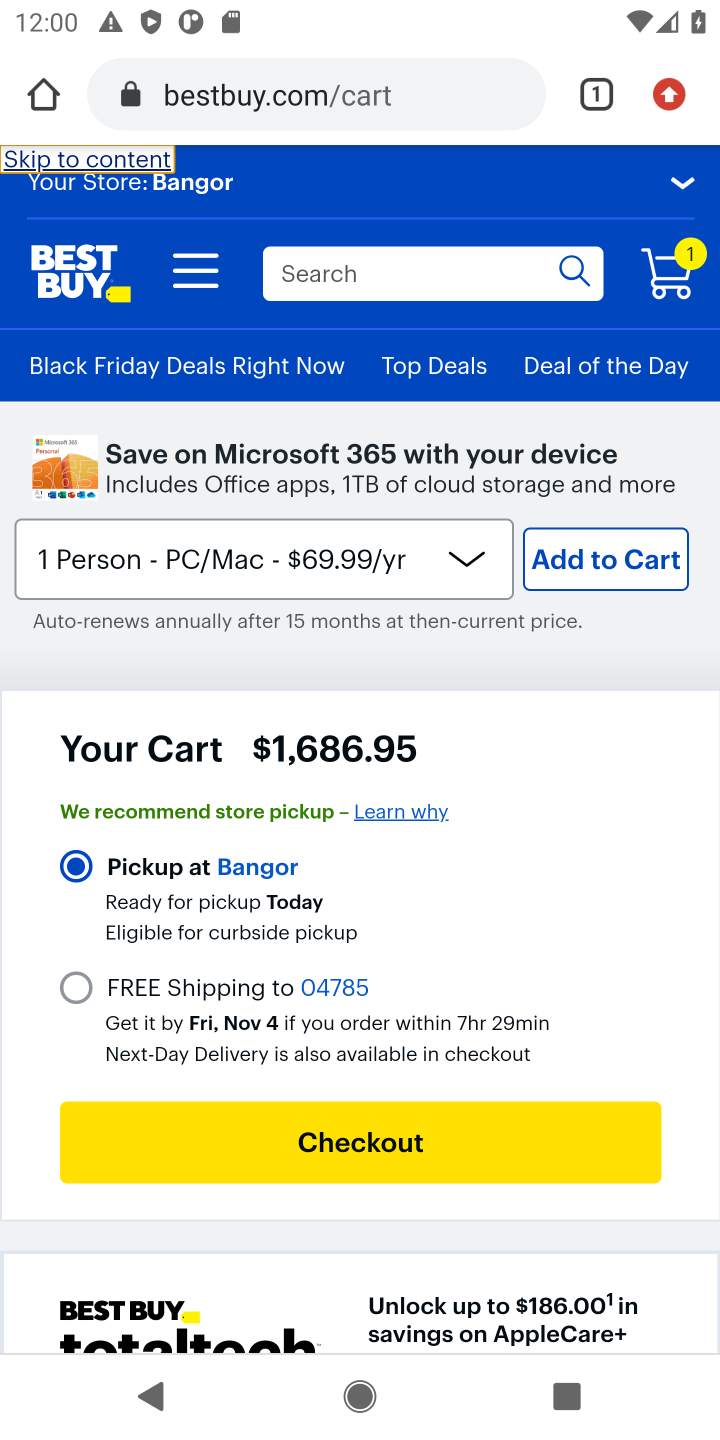
Step 29: click (422, 1106)
Your task to perform on an android device: Empty the shopping cart on bestbuy.com. Add "macbook pro" to the cart on bestbuy.com, then select checkout. Image 30: 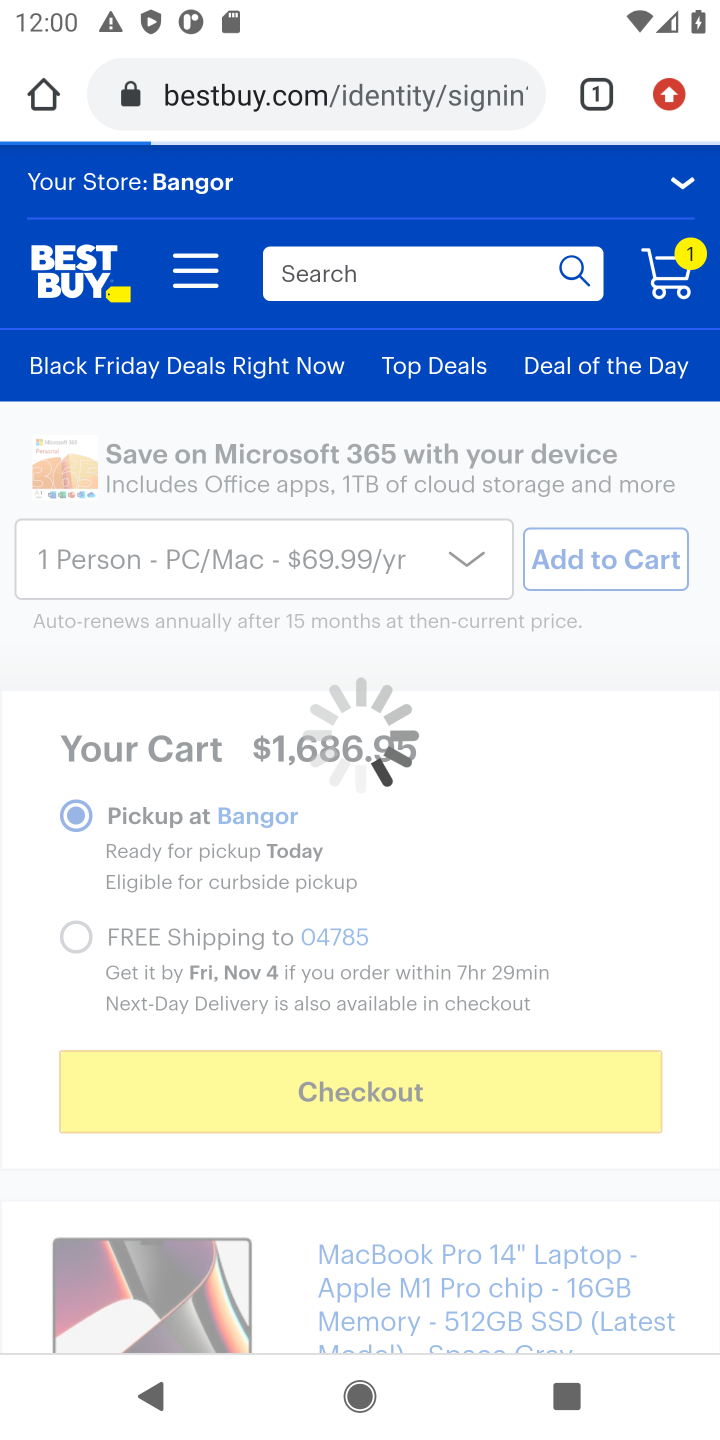
Step 30: task complete